Your task to perform on an android device: Go to eBay Image 0: 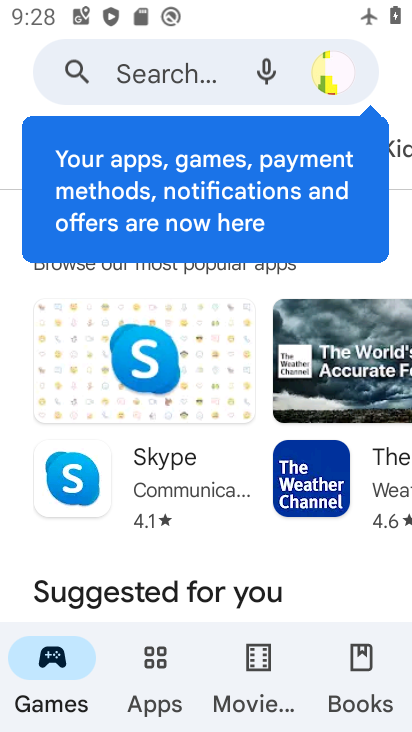
Step 0: press home button
Your task to perform on an android device: Go to eBay Image 1: 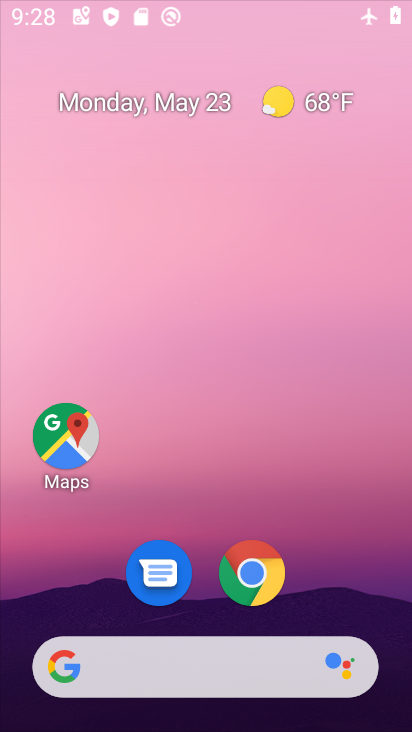
Step 1: drag from (190, 659) to (267, 87)
Your task to perform on an android device: Go to eBay Image 2: 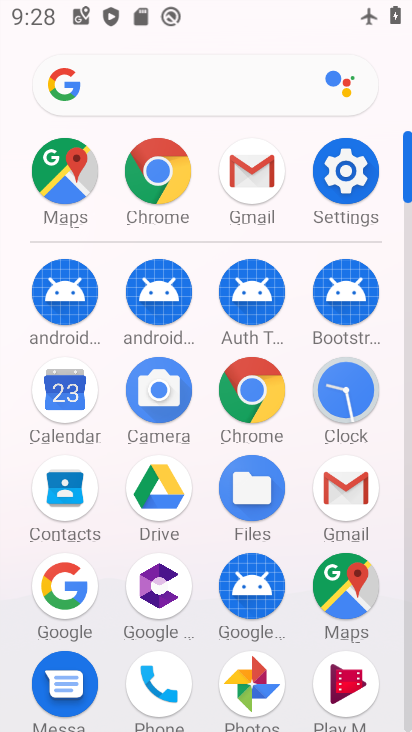
Step 2: click (259, 415)
Your task to perform on an android device: Go to eBay Image 3: 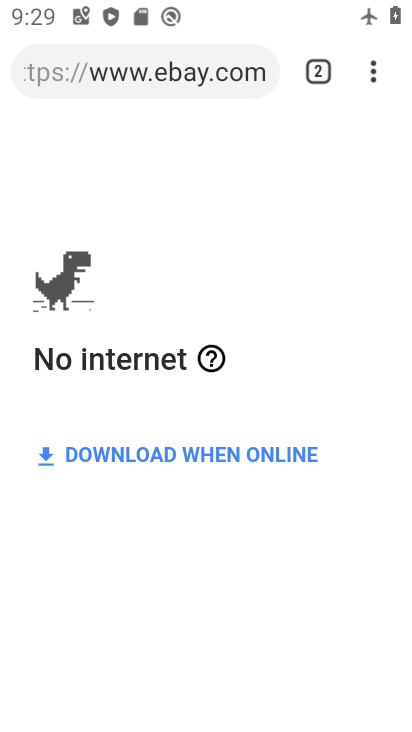
Step 3: task complete